Your task to perform on an android device: Clear the cart on amazon.com. Search for bose soundlink on amazon.com, select the first entry, and add it to the cart. Image 0: 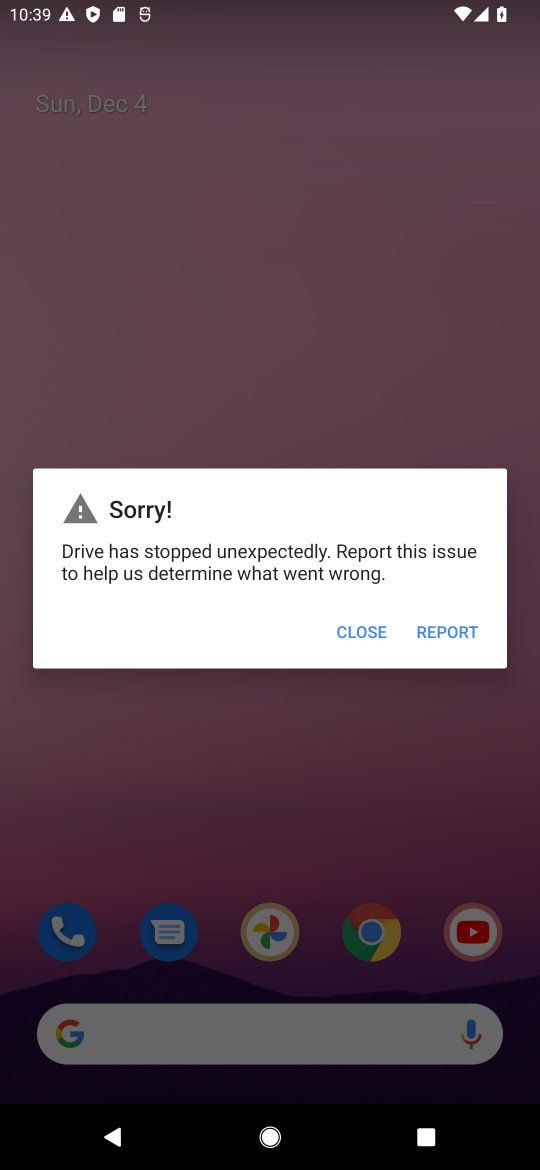
Step 0: task complete